Your task to perform on an android device: Show me popular games on the Play Store Image 0: 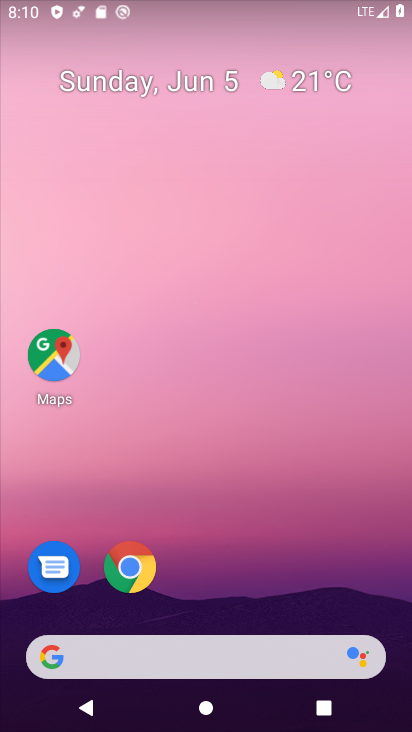
Step 0: drag from (202, 644) to (236, 119)
Your task to perform on an android device: Show me popular games on the Play Store Image 1: 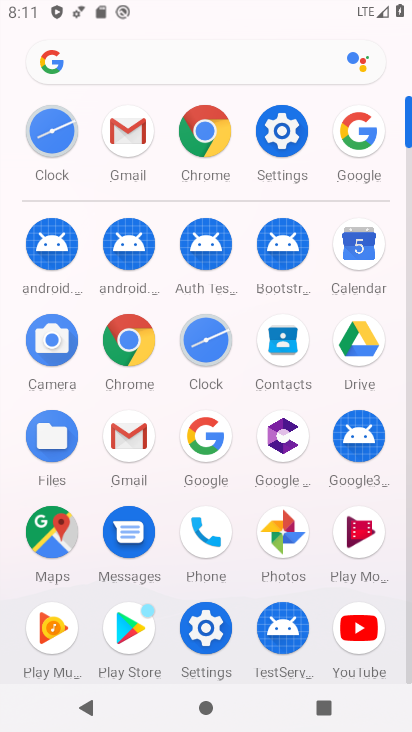
Step 1: click (129, 639)
Your task to perform on an android device: Show me popular games on the Play Store Image 2: 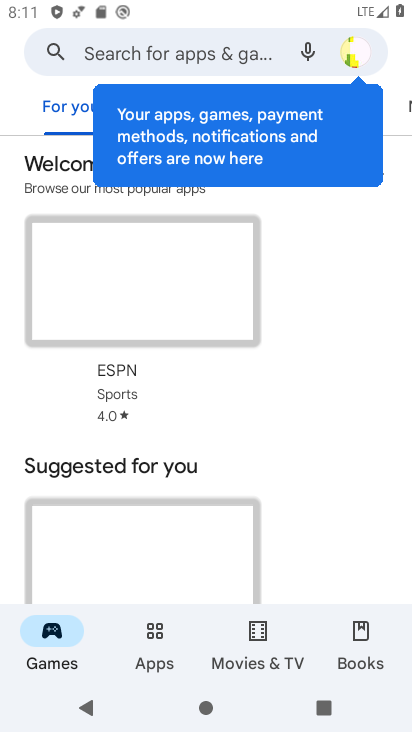
Step 2: click (213, 52)
Your task to perform on an android device: Show me popular games on the Play Store Image 3: 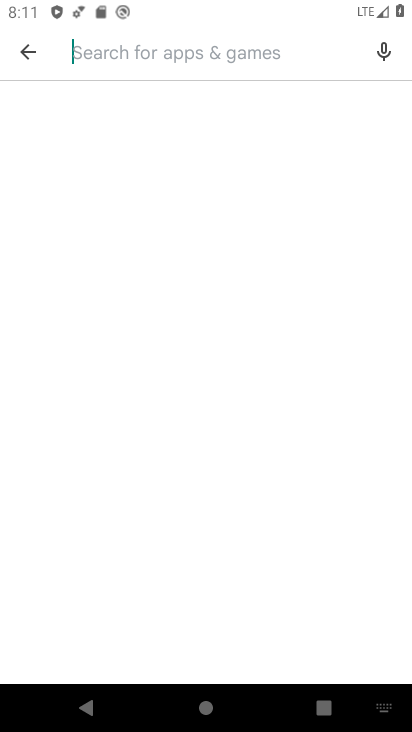
Step 3: type "popular games"
Your task to perform on an android device: Show me popular games on the Play Store Image 4: 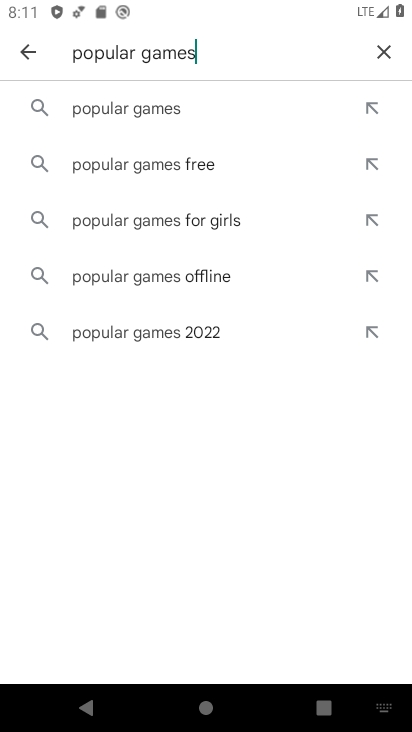
Step 4: click (135, 110)
Your task to perform on an android device: Show me popular games on the Play Store Image 5: 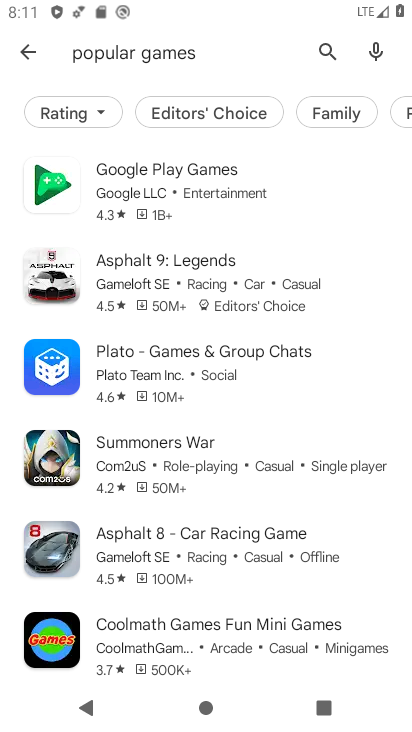
Step 5: task complete